Your task to perform on an android device: open chrome and create a bookmark for the current page Image 0: 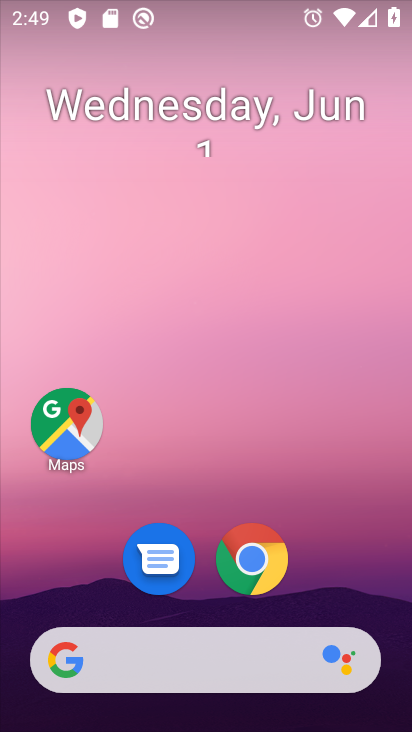
Step 0: click (265, 572)
Your task to perform on an android device: open chrome and create a bookmark for the current page Image 1: 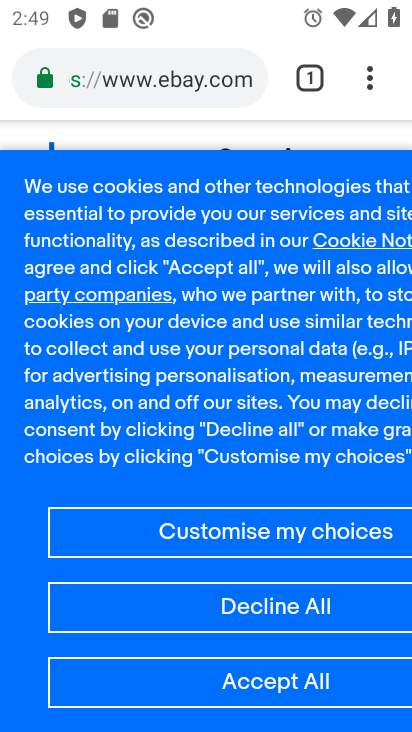
Step 1: click (357, 71)
Your task to perform on an android device: open chrome and create a bookmark for the current page Image 2: 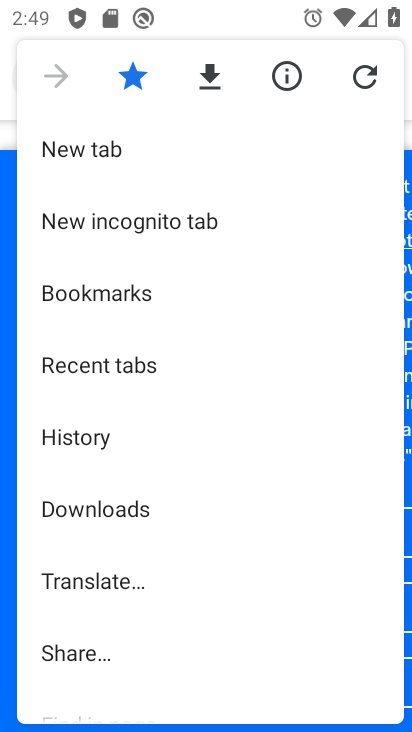
Step 2: task complete